Your task to perform on an android device: Open ESPN.com Image 0: 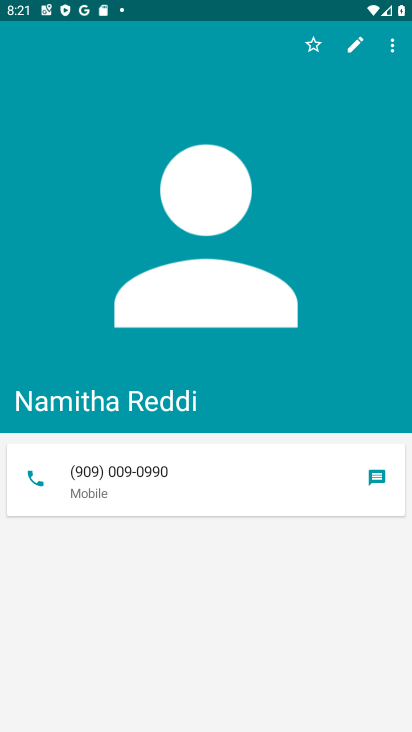
Step 0: press home button
Your task to perform on an android device: Open ESPN.com Image 1: 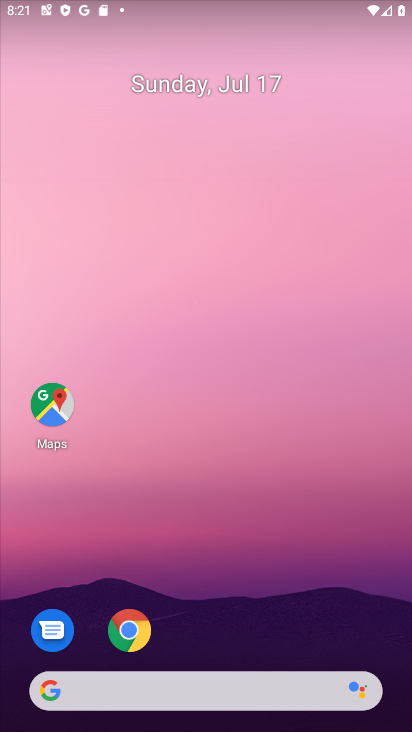
Step 1: click (132, 637)
Your task to perform on an android device: Open ESPN.com Image 2: 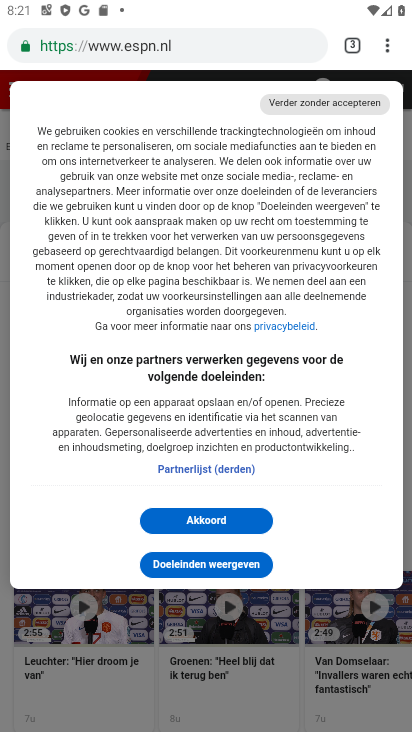
Step 2: task complete